Your task to perform on an android device: open app "Etsy: Buy & Sell Unique Items" Image 0: 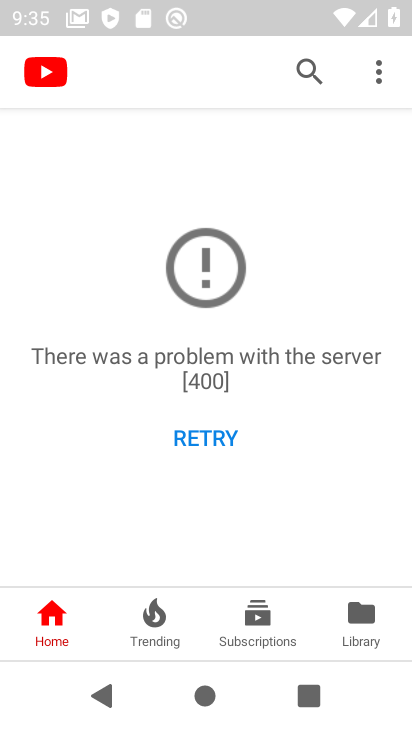
Step 0: drag from (259, 447) to (310, 19)
Your task to perform on an android device: open app "Etsy: Buy & Sell Unique Items" Image 1: 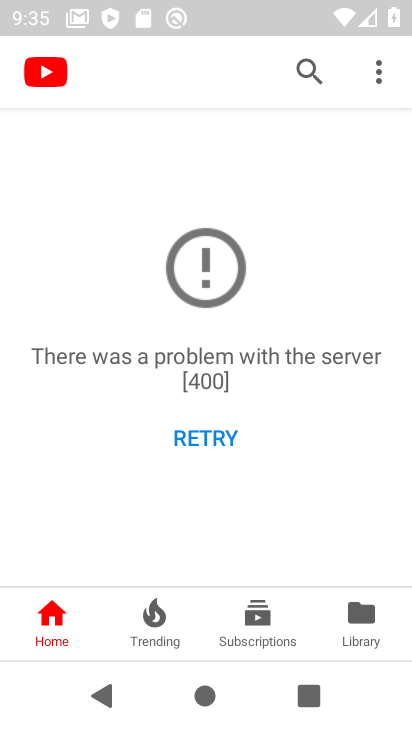
Step 1: drag from (246, 535) to (410, 242)
Your task to perform on an android device: open app "Etsy: Buy & Sell Unique Items" Image 2: 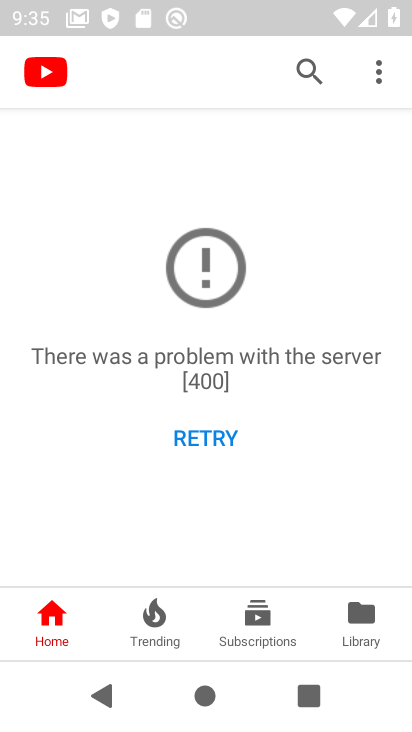
Step 2: press home button
Your task to perform on an android device: open app "Etsy: Buy & Sell Unique Items" Image 3: 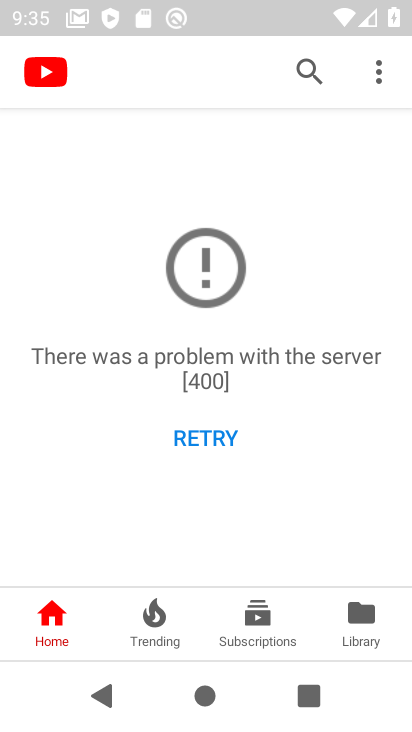
Step 3: press home button
Your task to perform on an android device: open app "Etsy: Buy & Sell Unique Items" Image 4: 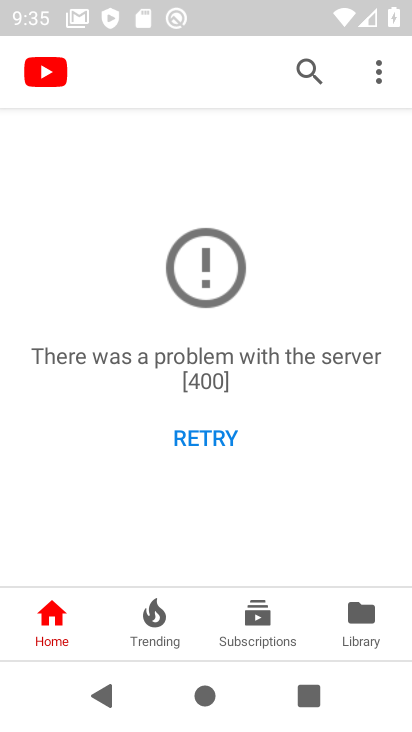
Step 4: click (277, 70)
Your task to perform on an android device: open app "Etsy: Buy & Sell Unique Items" Image 5: 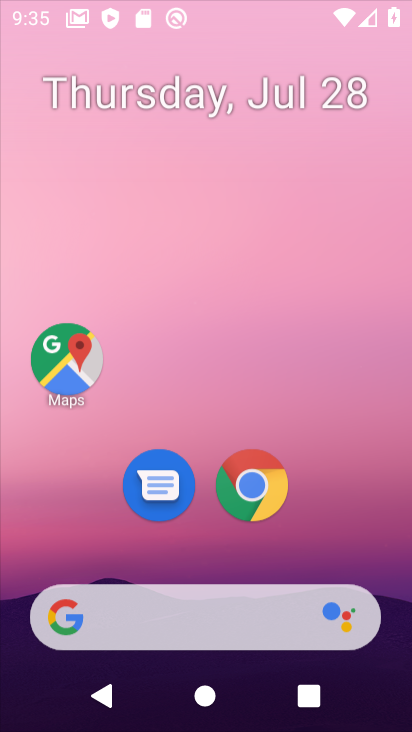
Step 5: drag from (217, 504) to (320, 1)
Your task to perform on an android device: open app "Etsy: Buy & Sell Unique Items" Image 6: 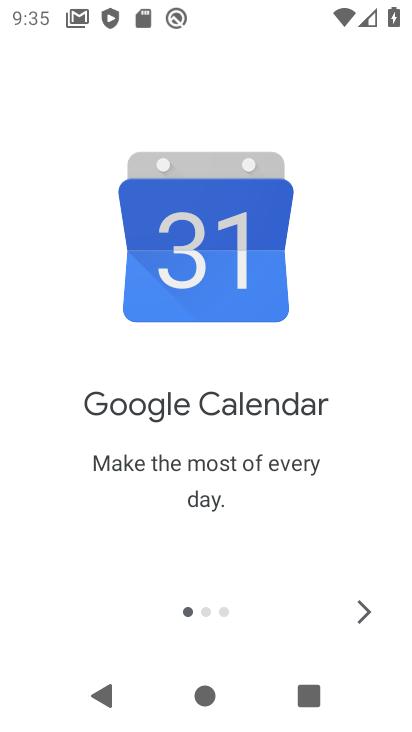
Step 6: press home button
Your task to perform on an android device: open app "Etsy: Buy & Sell Unique Items" Image 7: 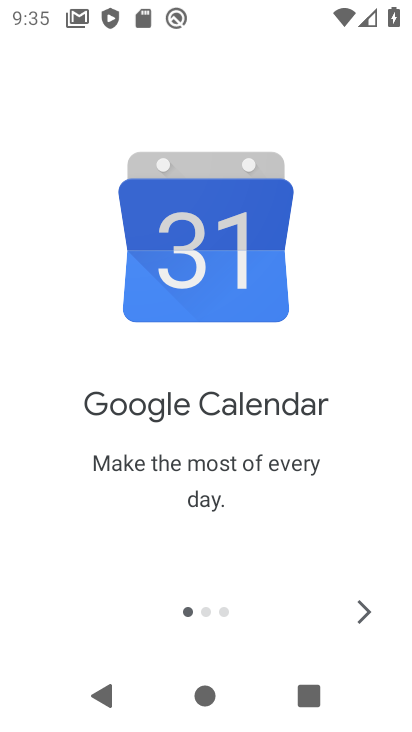
Step 7: press home button
Your task to perform on an android device: open app "Etsy: Buy & Sell Unique Items" Image 8: 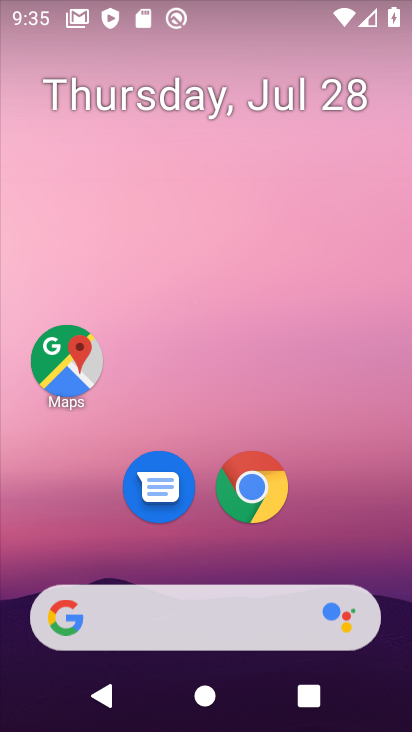
Step 8: drag from (211, 558) to (206, 38)
Your task to perform on an android device: open app "Etsy: Buy & Sell Unique Items" Image 9: 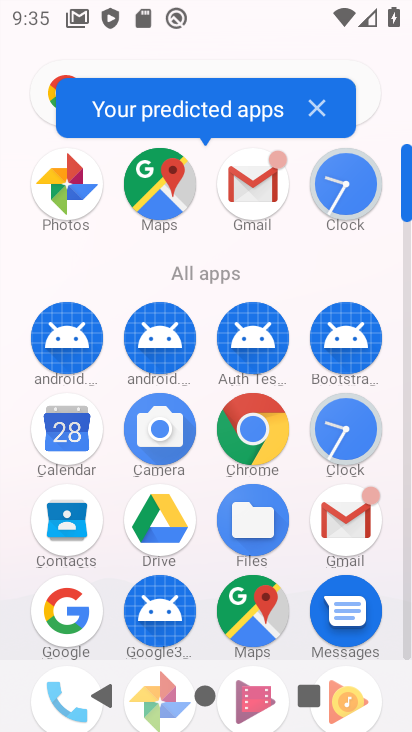
Step 9: drag from (216, 576) to (211, 399)
Your task to perform on an android device: open app "Etsy: Buy & Sell Unique Items" Image 10: 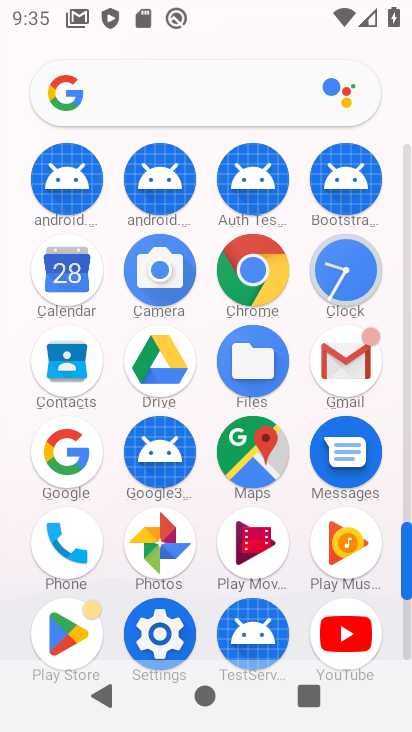
Step 10: click (71, 614)
Your task to perform on an android device: open app "Etsy: Buy & Sell Unique Items" Image 11: 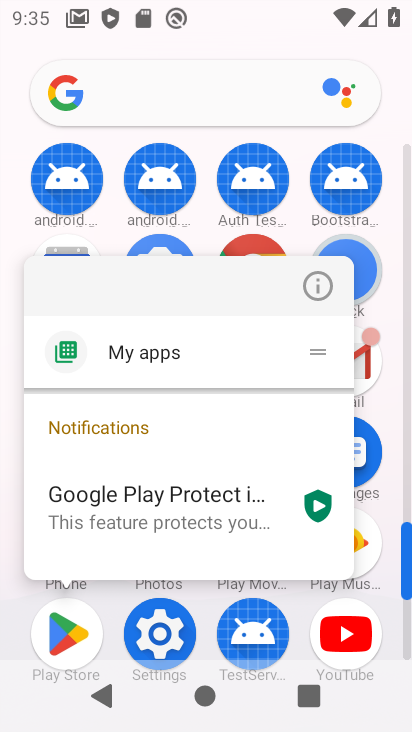
Step 11: click (318, 290)
Your task to perform on an android device: open app "Etsy: Buy & Sell Unique Items" Image 12: 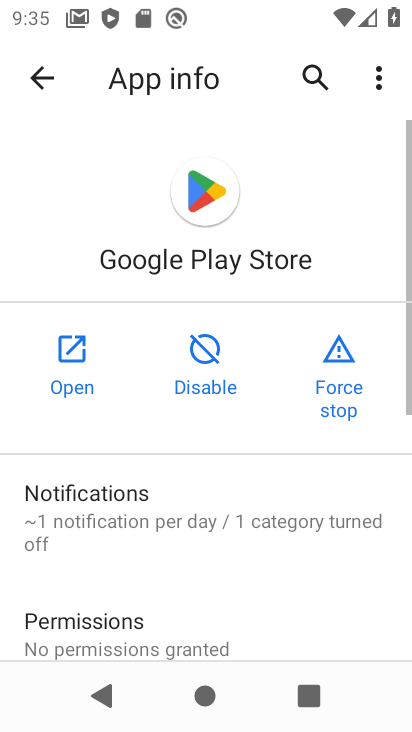
Step 12: click (72, 384)
Your task to perform on an android device: open app "Etsy: Buy & Sell Unique Items" Image 13: 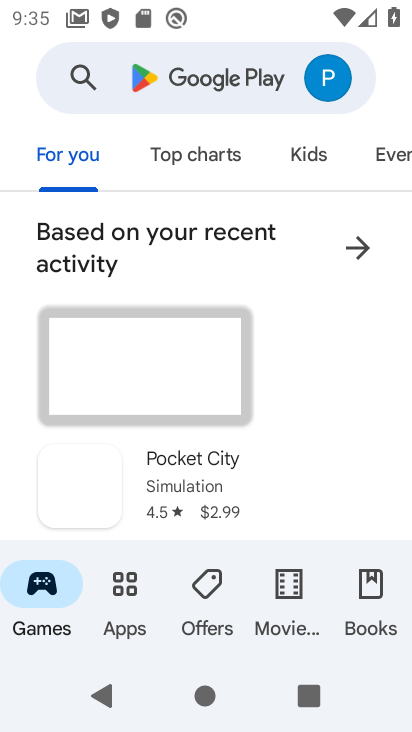
Step 13: click (153, 70)
Your task to perform on an android device: open app "Etsy: Buy & Sell Unique Items" Image 14: 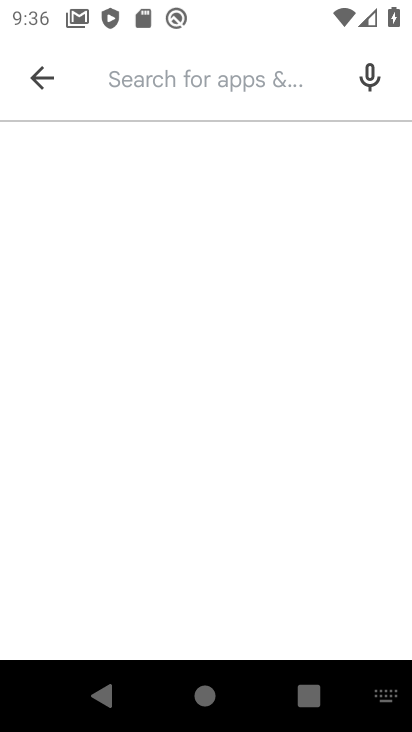
Step 14: type "Etsy: Buy & sell Unique Items"
Your task to perform on an android device: open app "Etsy: Buy & Sell Unique Items" Image 15: 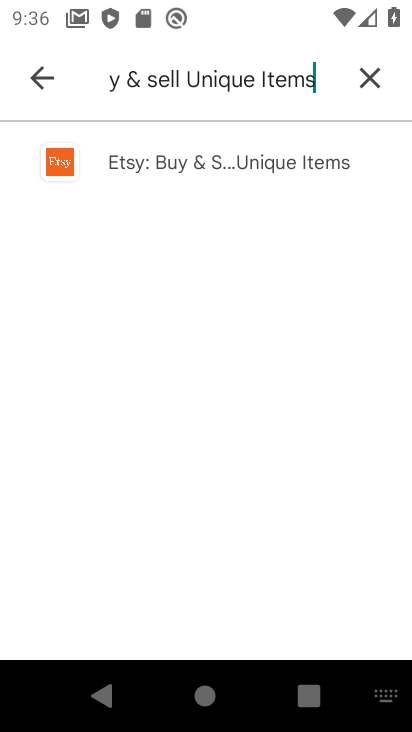
Step 15: click (205, 130)
Your task to perform on an android device: open app "Etsy: Buy & Sell Unique Items" Image 16: 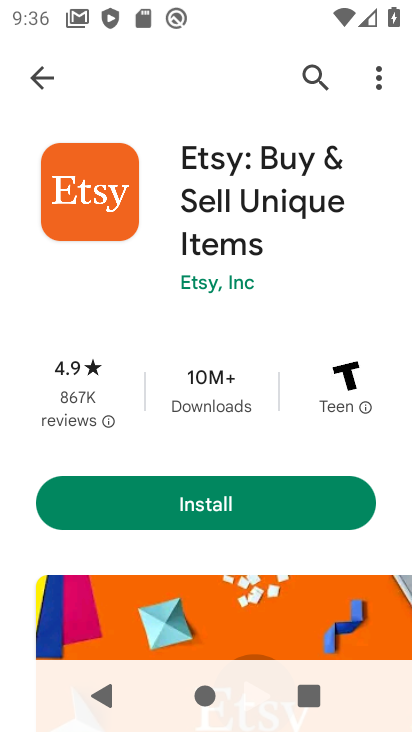
Step 16: click (380, 123)
Your task to perform on an android device: open app "Etsy: Buy & Sell Unique Items" Image 17: 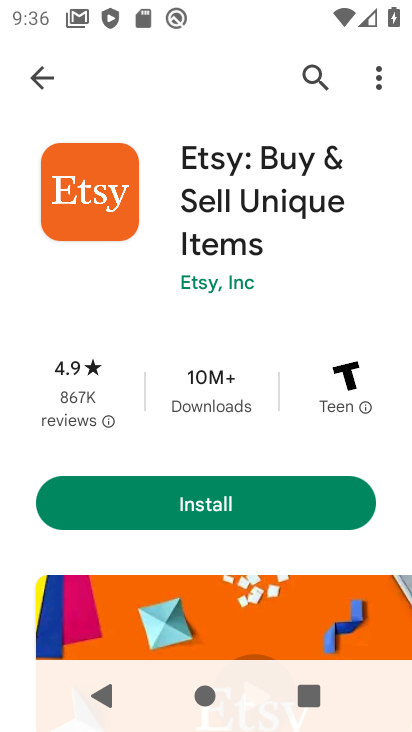
Step 17: task complete